Your task to perform on an android device: Go to network settings Image 0: 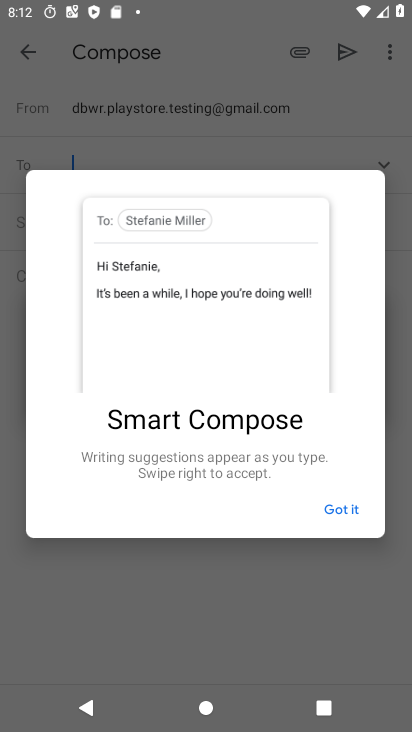
Step 0: press home button
Your task to perform on an android device: Go to network settings Image 1: 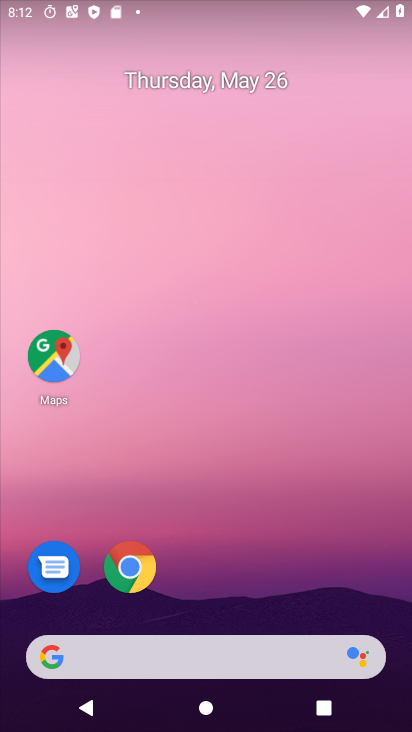
Step 1: drag from (179, 665) to (273, 132)
Your task to perform on an android device: Go to network settings Image 2: 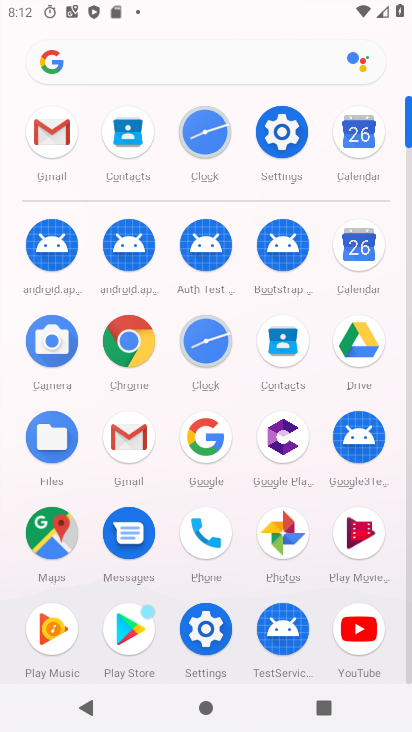
Step 2: click (282, 138)
Your task to perform on an android device: Go to network settings Image 3: 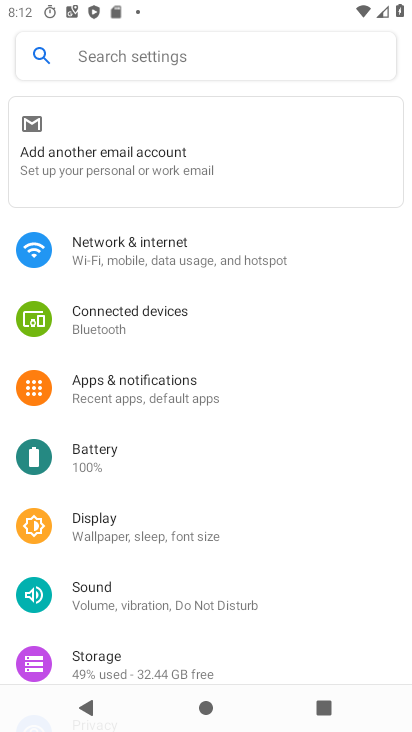
Step 3: click (168, 255)
Your task to perform on an android device: Go to network settings Image 4: 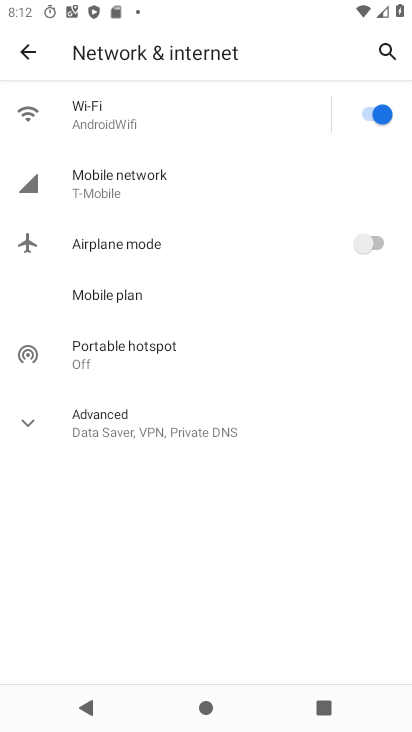
Step 4: task complete